Your task to perform on an android device: Go to eBay Image 0: 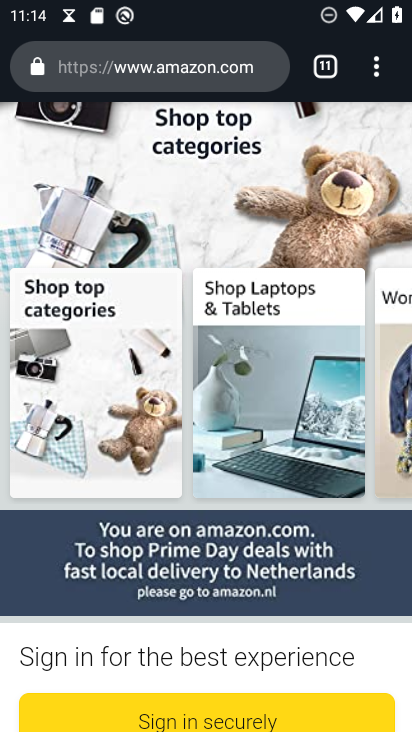
Step 0: press home button
Your task to perform on an android device: Go to eBay Image 1: 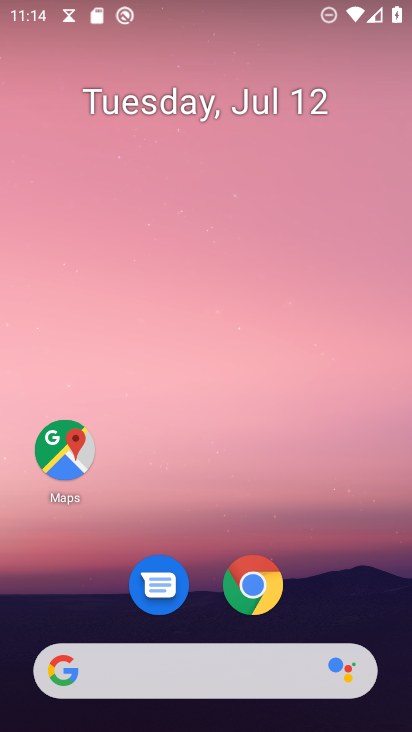
Step 1: click (250, 585)
Your task to perform on an android device: Go to eBay Image 2: 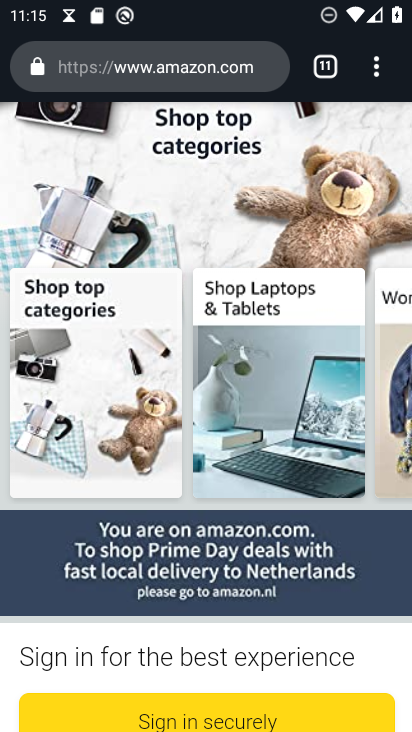
Step 2: drag from (381, 80) to (184, 138)
Your task to perform on an android device: Go to eBay Image 3: 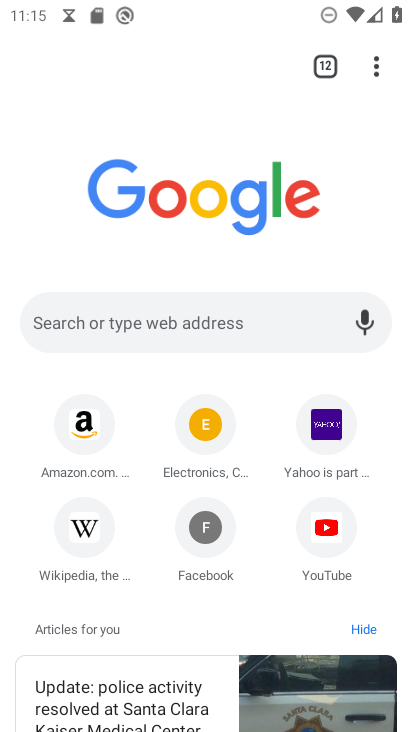
Step 3: click (134, 310)
Your task to perform on an android device: Go to eBay Image 4: 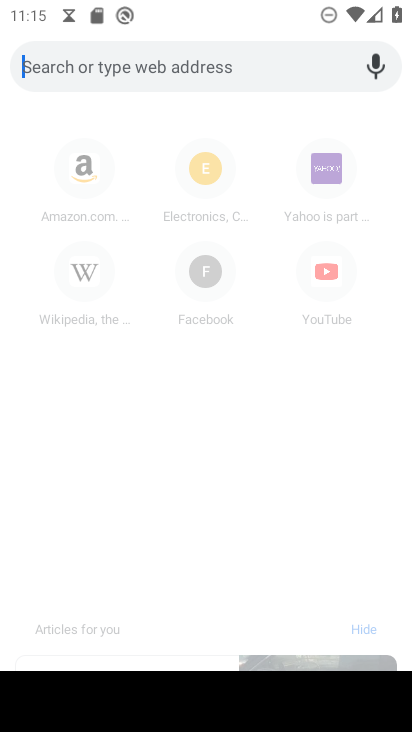
Step 4: type "ebay"
Your task to perform on an android device: Go to eBay Image 5: 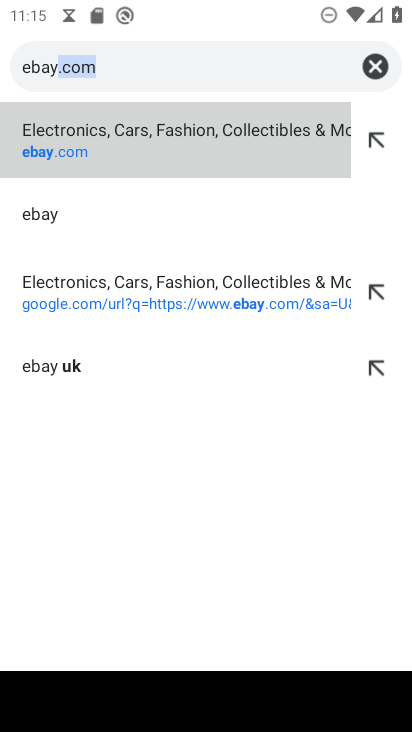
Step 5: click (209, 147)
Your task to perform on an android device: Go to eBay Image 6: 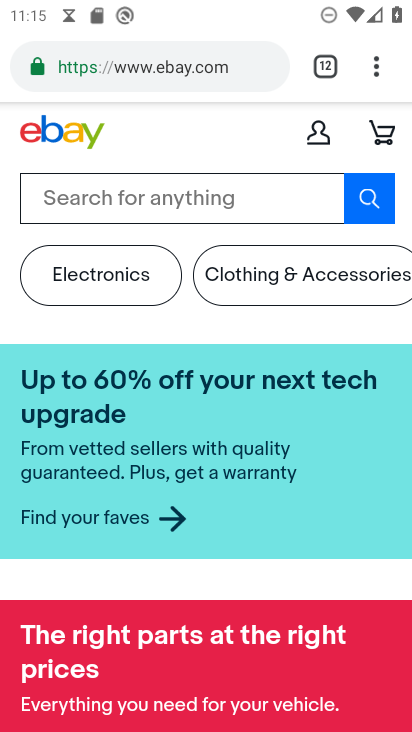
Step 6: task complete